Your task to perform on an android device: open app "AliExpress" (install if not already installed) Image 0: 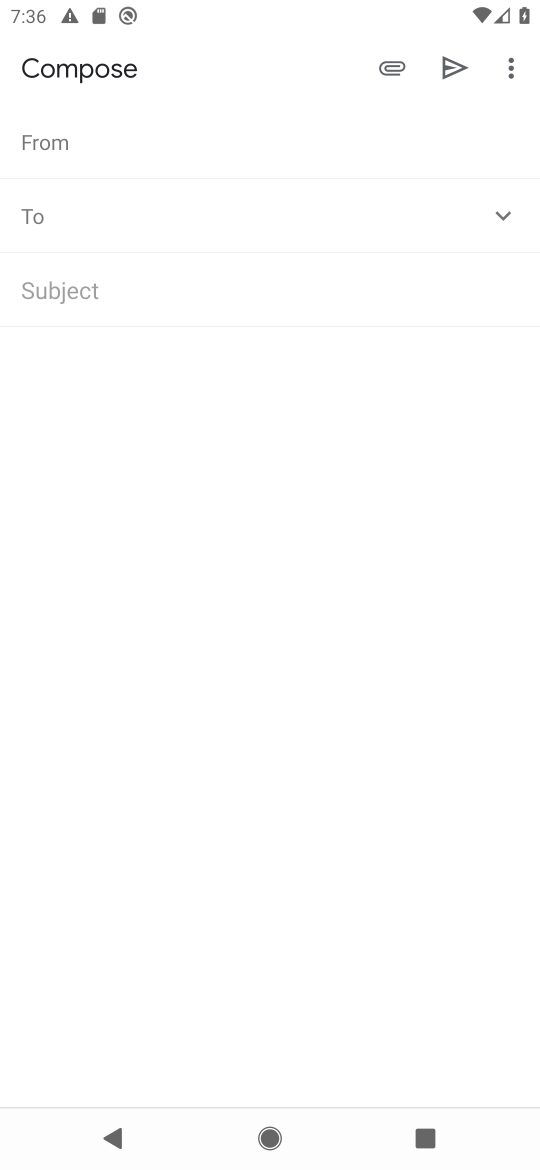
Step 0: press home button
Your task to perform on an android device: open app "AliExpress" (install if not already installed) Image 1: 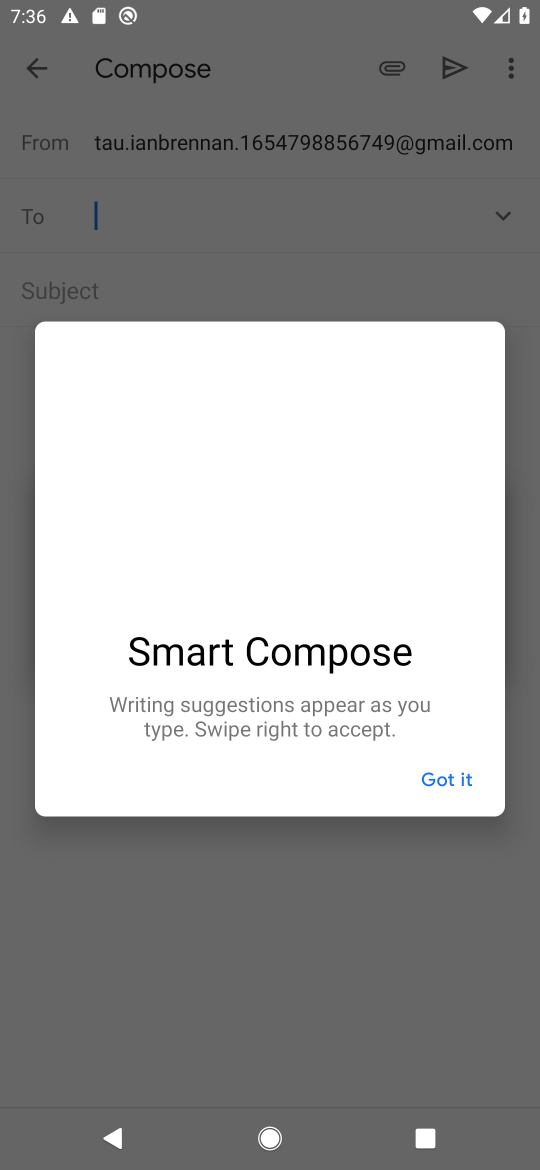
Step 1: press home button
Your task to perform on an android device: open app "AliExpress" (install if not already installed) Image 2: 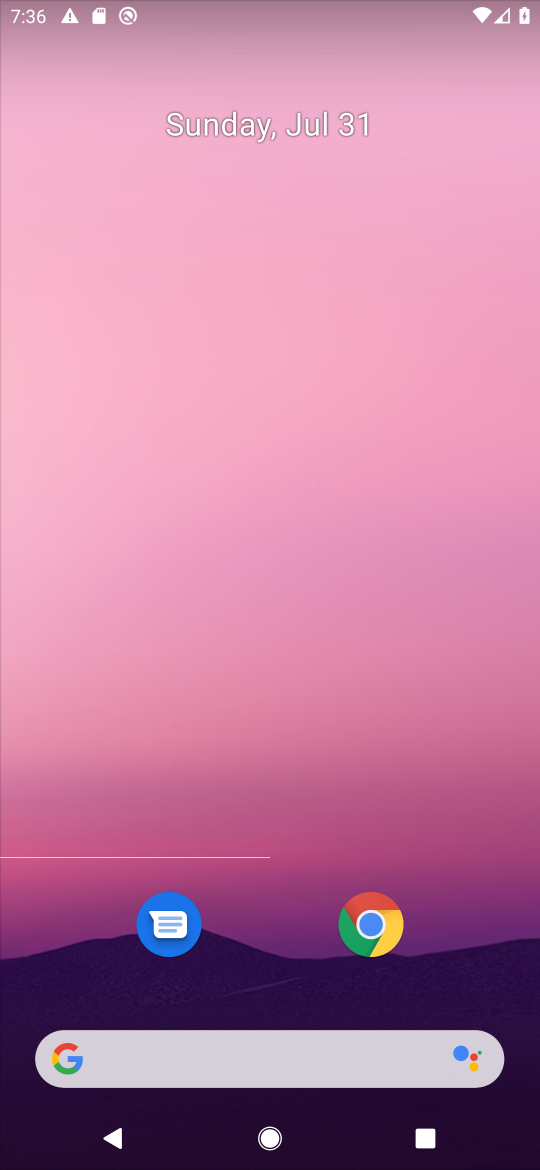
Step 2: click (459, 781)
Your task to perform on an android device: open app "AliExpress" (install if not already installed) Image 3: 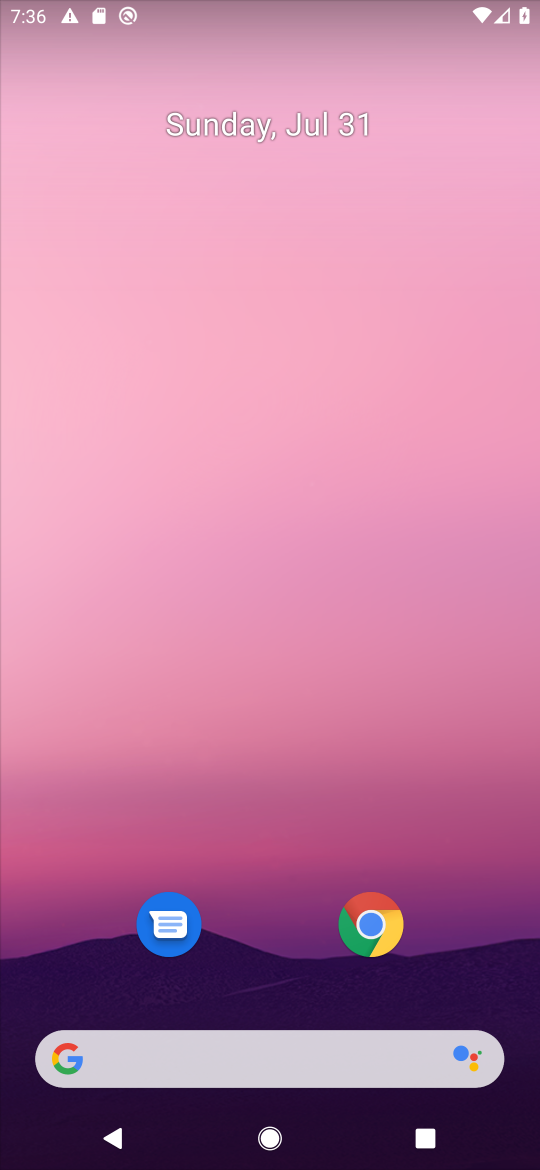
Step 3: drag from (250, 884) to (250, 386)
Your task to perform on an android device: open app "AliExpress" (install if not already installed) Image 4: 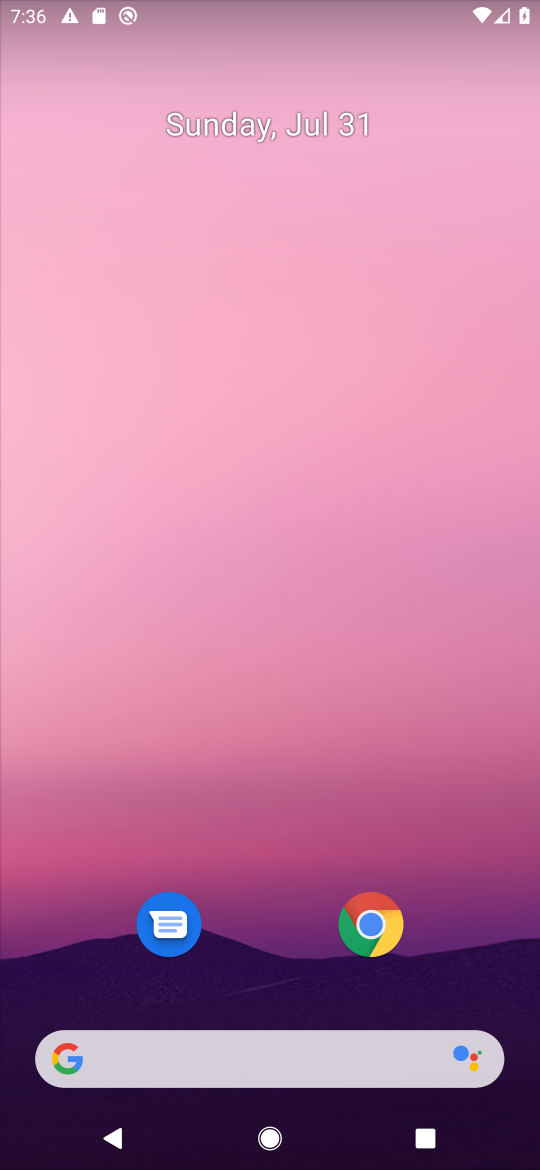
Step 4: drag from (409, 887) to (421, 290)
Your task to perform on an android device: open app "AliExpress" (install if not already installed) Image 5: 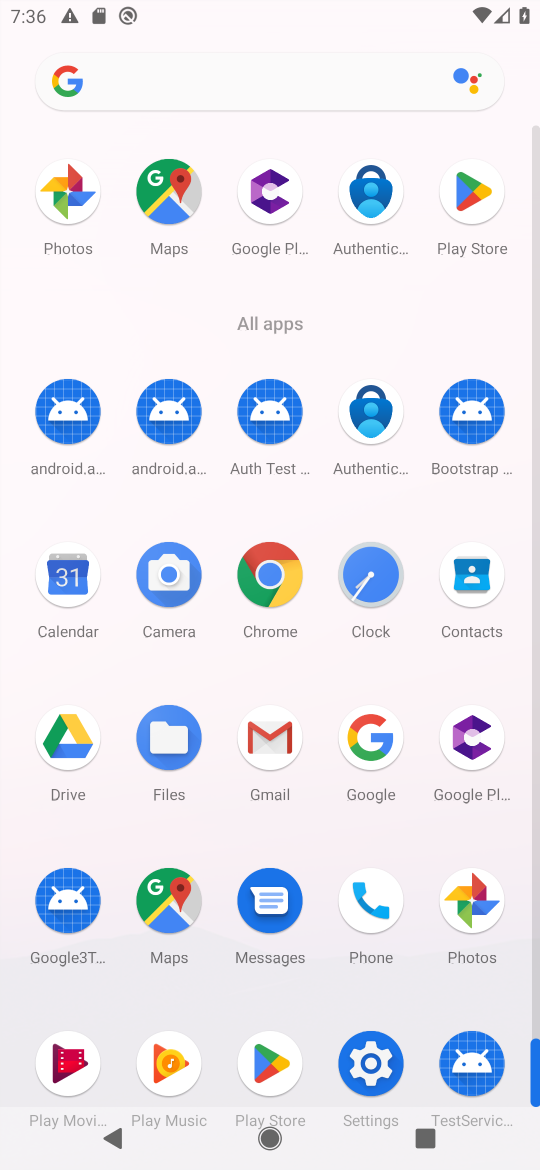
Step 5: click (484, 197)
Your task to perform on an android device: open app "AliExpress" (install if not already installed) Image 6: 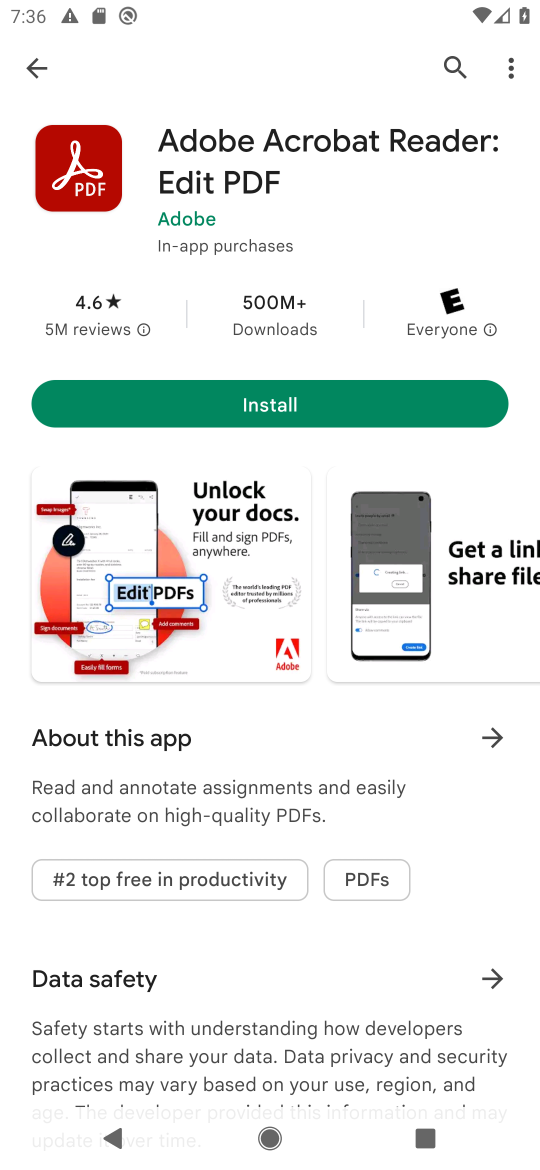
Step 6: click (21, 76)
Your task to perform on an android device: open app "AliExpress" (install if not already installed) Image 7: 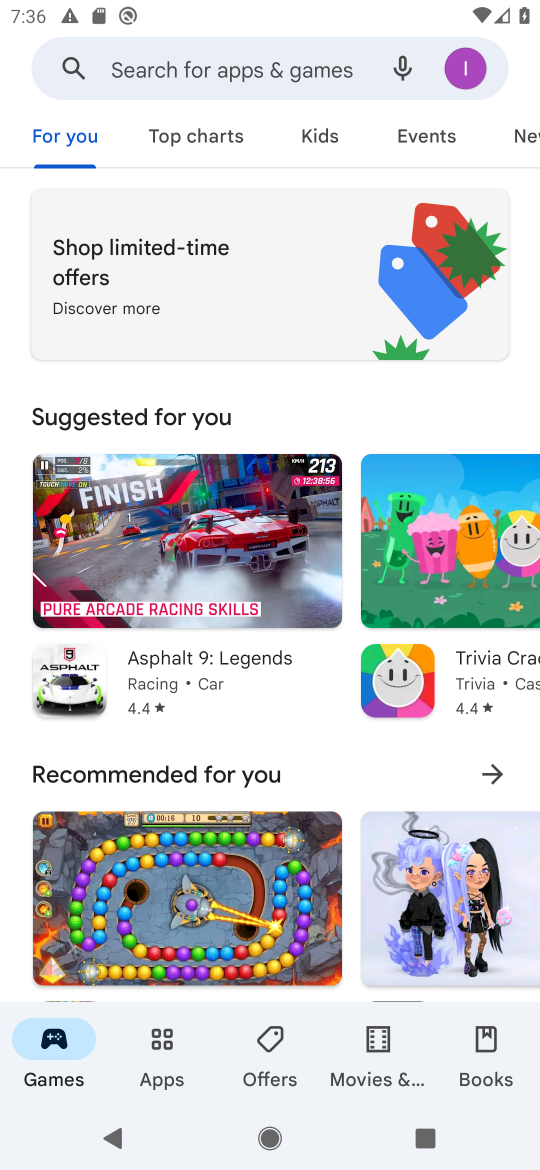
Step 7: click (206, 66)
Your task to perform on an android device: open app "AliExpress" (install if not already installed) Image 8: 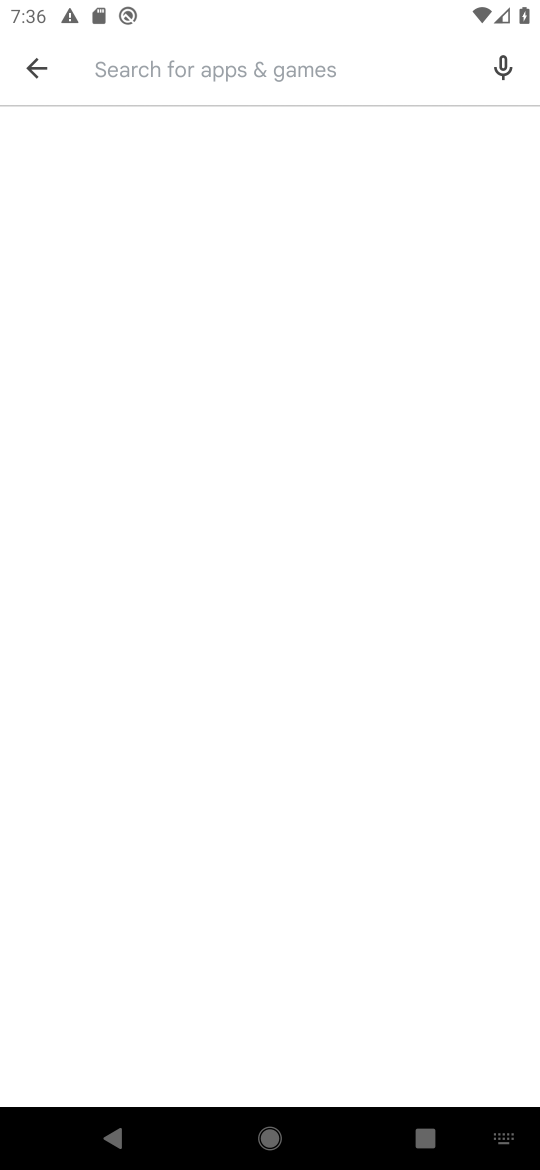
Step 8: type "AliExpress"
Your task to perform on an android device: open app "AliExpress" (install if not already installed) Image 9: 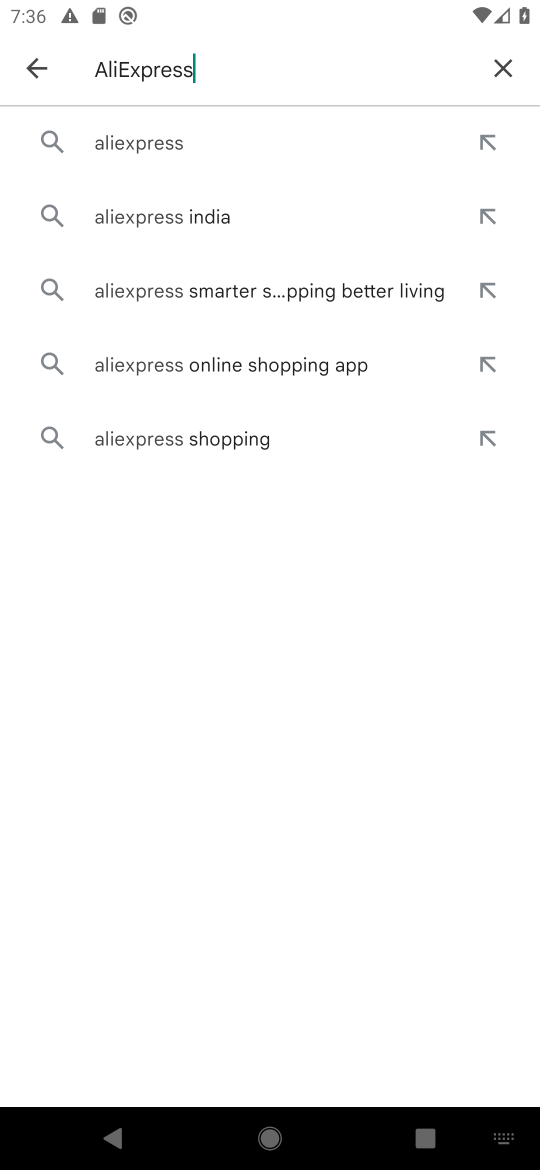
Step 9: click (105, 146)
Your task to perform on an android device: open app "AliExpress" (install if not already installed) Image 10: 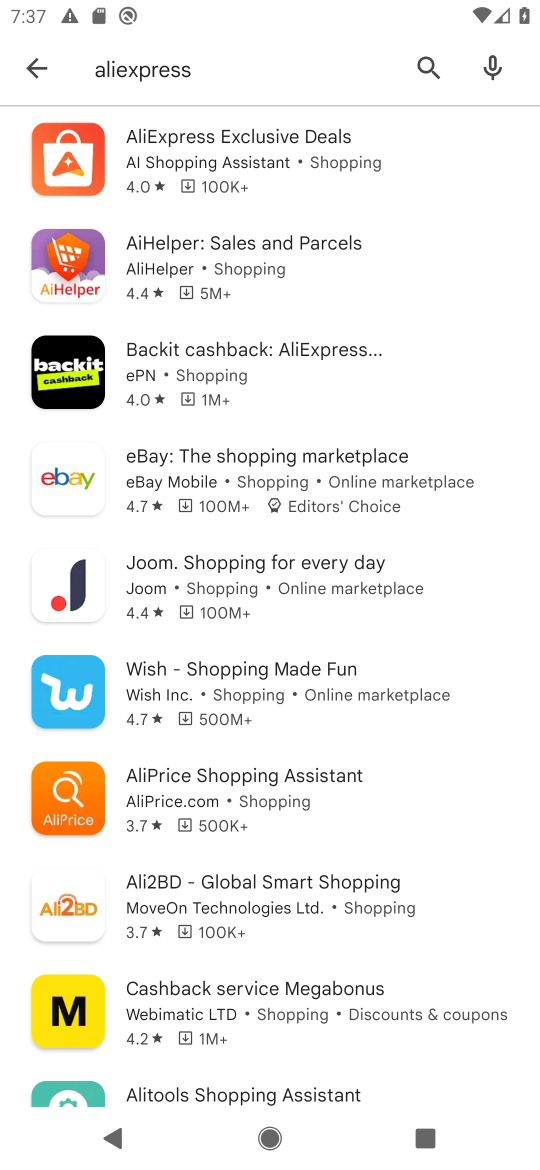
Step 10: click (182, 167)
Your task to perform on an android device: open app "AliExpress" (install if not already installed) Image 11: 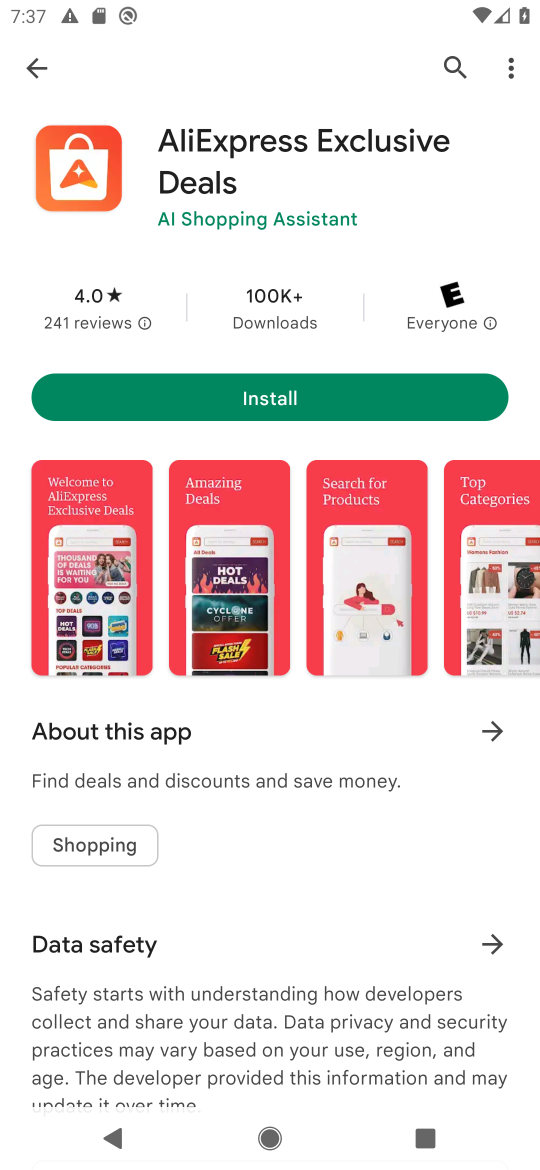
Step 11: click (223, 398)
Your task to perform on an android device: open app "AliExpress" (install if not already installed) Image 12: 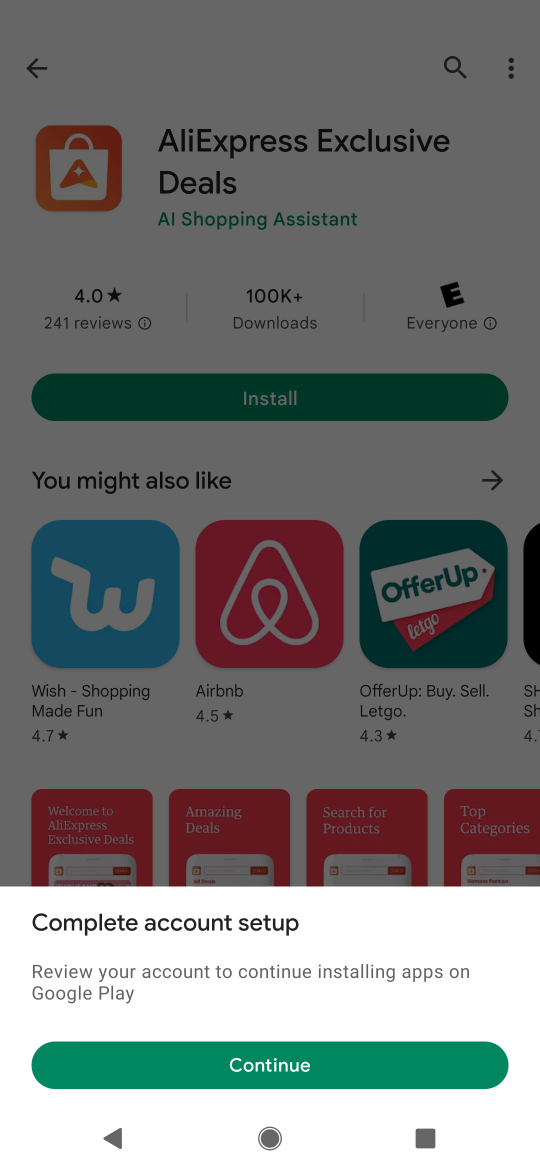
Step 12: click (235, 1050)
Your task to perform on an android device: open app "AliExpress" (install if not already installed) Image 13: 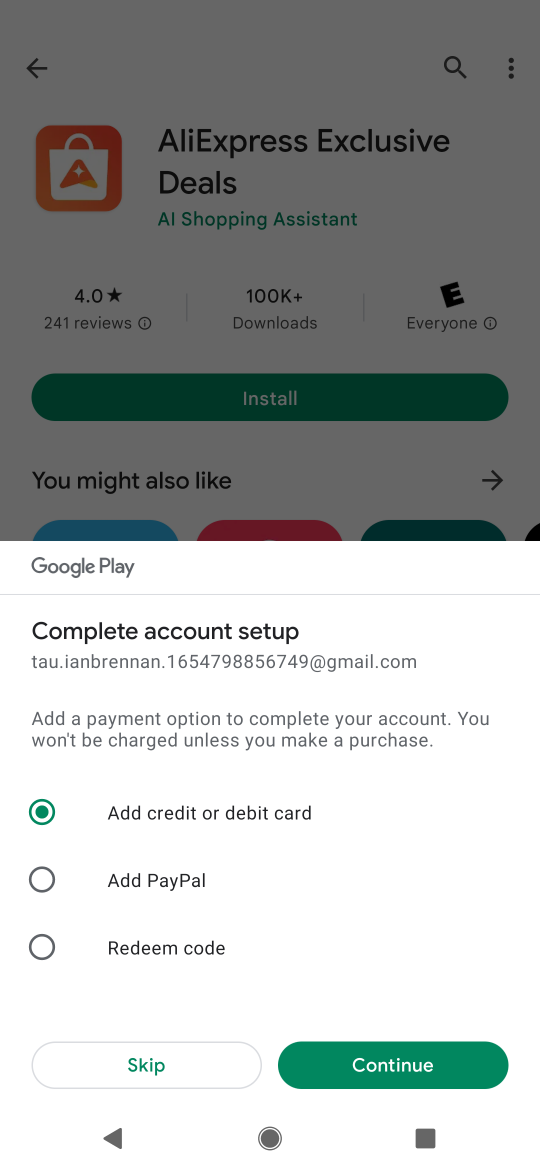
Step 13: click (173, 1056)
Your task to perform on an android device: open app "AliExpress" (install if not already installed) Image 14: 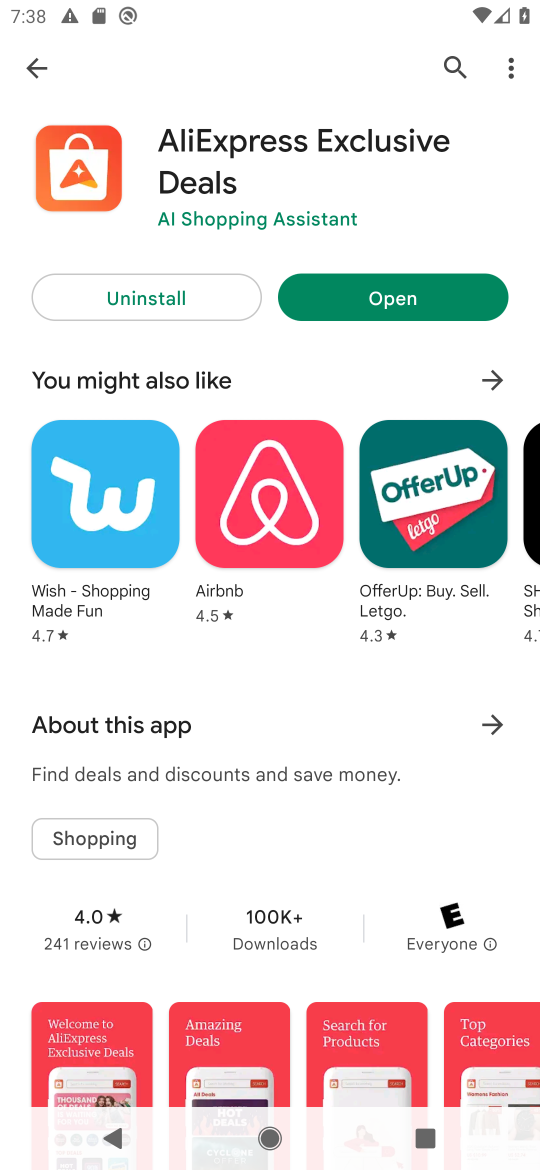
Step 14: click (385, 293)
Your task to perform on an android device: open app "AliExpress" (install if not already installed) Image 15: 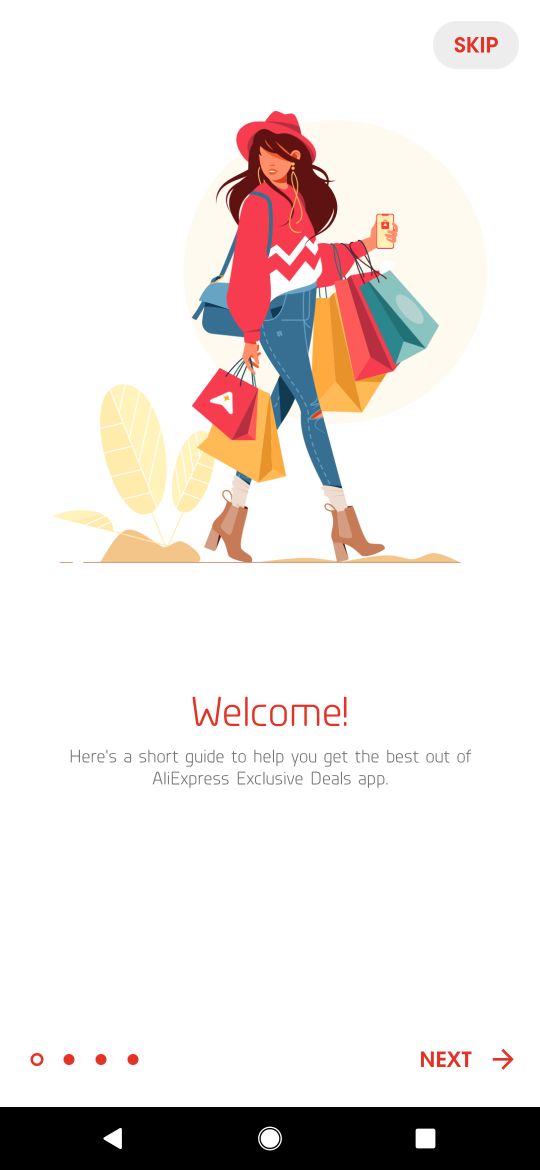
Step 15: task complete